Your task to perform on an android device: Go to ESPN.com Image 0: 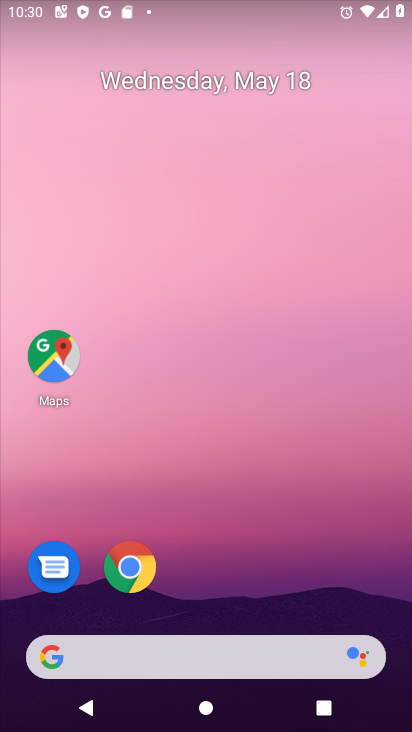
Step 0: click (138, 587)
Your task to perform on an android device: Go to ESPN.com Image 1: 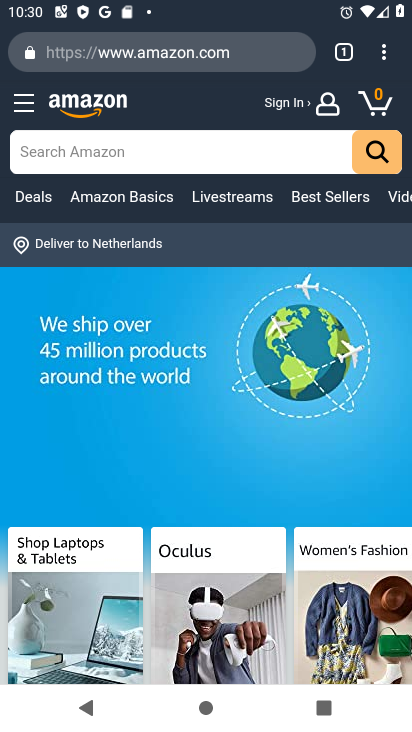
Step 1: click (161, 65)
Your task to perform on an android device: Go to ESPN.com Image 2: 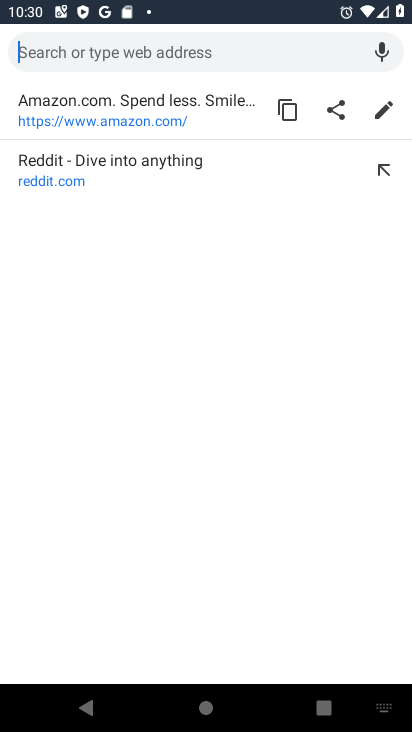
Step 2: type "espn.com"
Your task to perform on an android device: Go to ESPN.com Image 3: 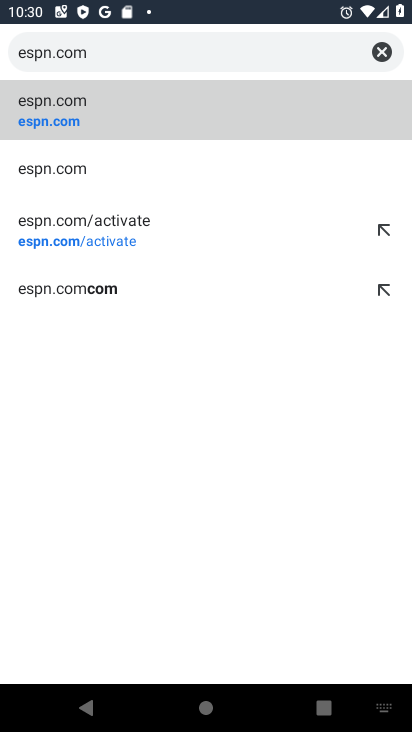
Step 3: click (64, 122)
Your task to perform on an android device: Go to ESPN.com Image 4: 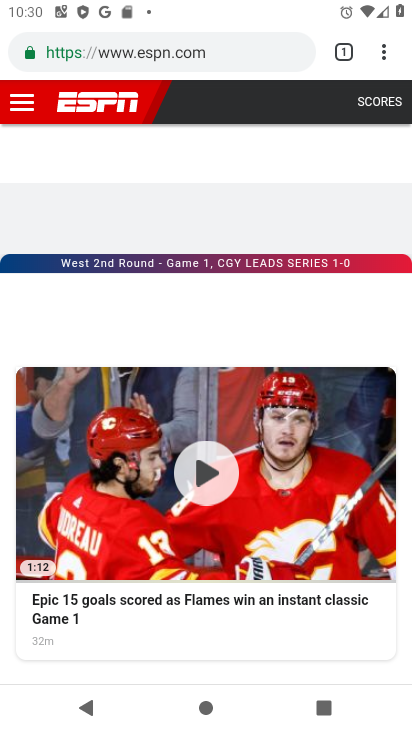
Step 4: task complete